Your task to perform on an android device: change alarm snooze length Image 0: 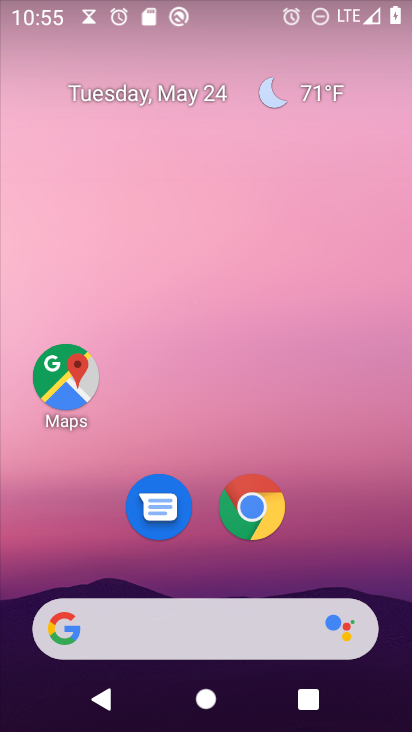
Step 0: drag from (228, 720) to (199, 115)
Your task to perform on an android device: change alarm snooze length Image 1: 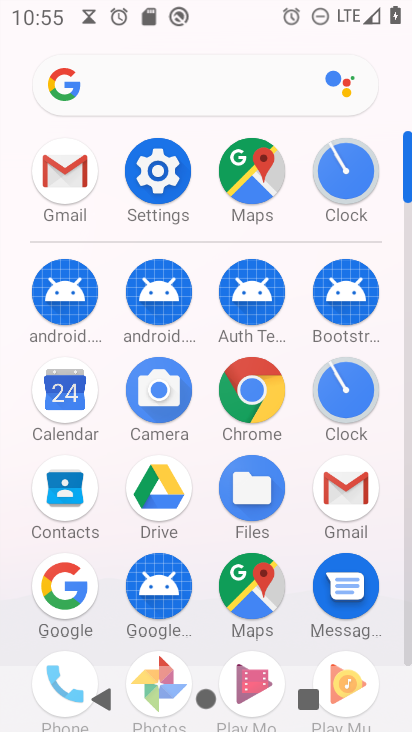
Step 1: click (353, 403)
Your task to perform on an android device: change alarm snooze length Image 2: 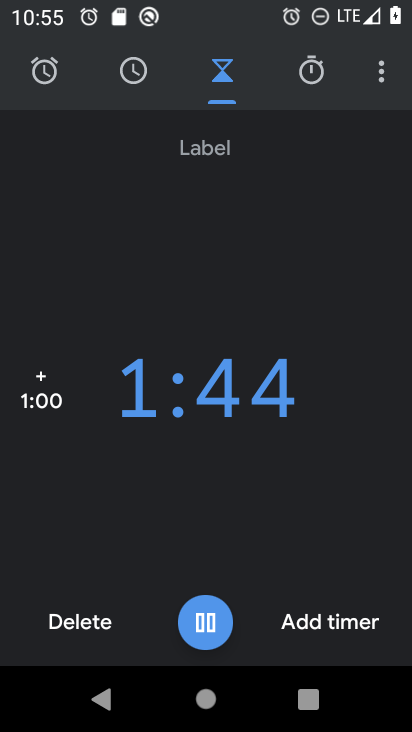
Step 2: click (385, 82)
Your task to perform on an android device: change alarm snooze length Image 3: 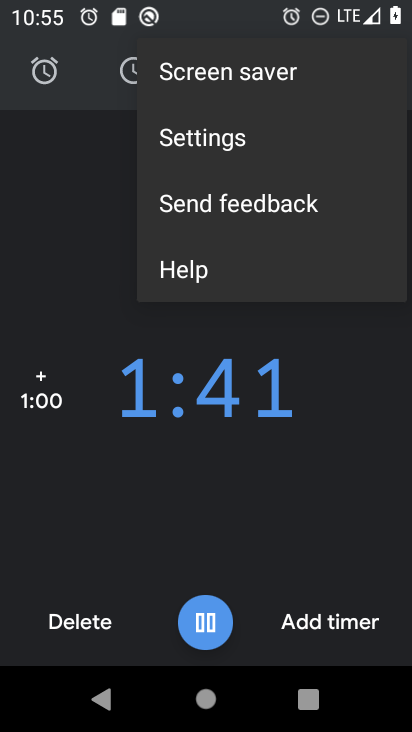
Step 3: click (209, 135)
Your task to perform on an android device: change alarm snooze length Image 4: 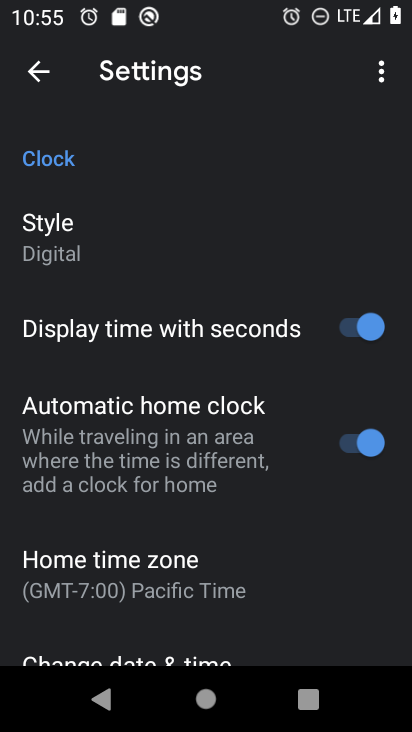
Step 4: drag from (186, 621) to (182, 267)
Your task to perform on an android device: change alarm snooze length Image 5: 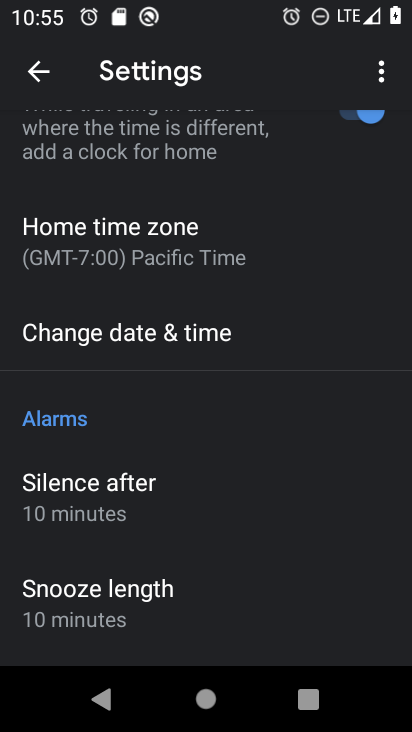
Step 5: click (114, 600)
Your task to perform on an android device: change alarm snooze length Image 6: 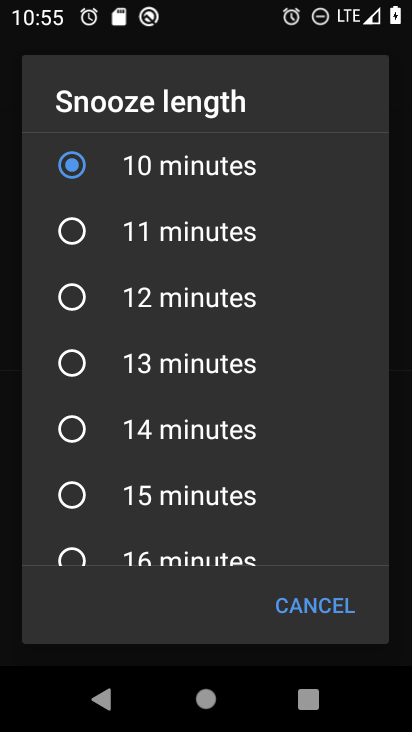
Step 6: click (75, 500)
Your task to perform on an android device: change alarm snooze length Image 7: 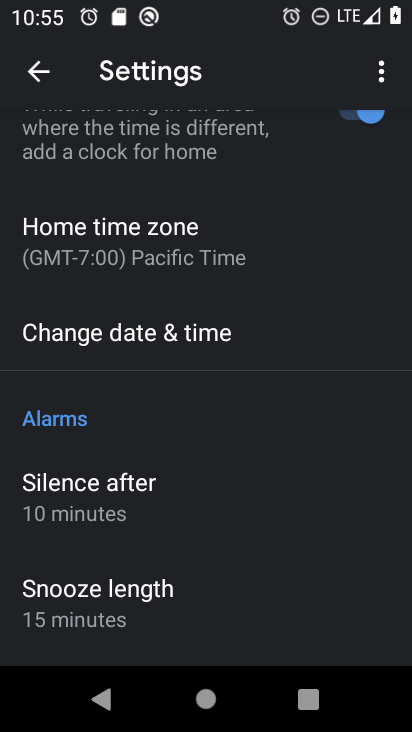
Step 7: task complete